Your task to perform on an android device: Add "sony triple a" to the cart on costco Image 0: 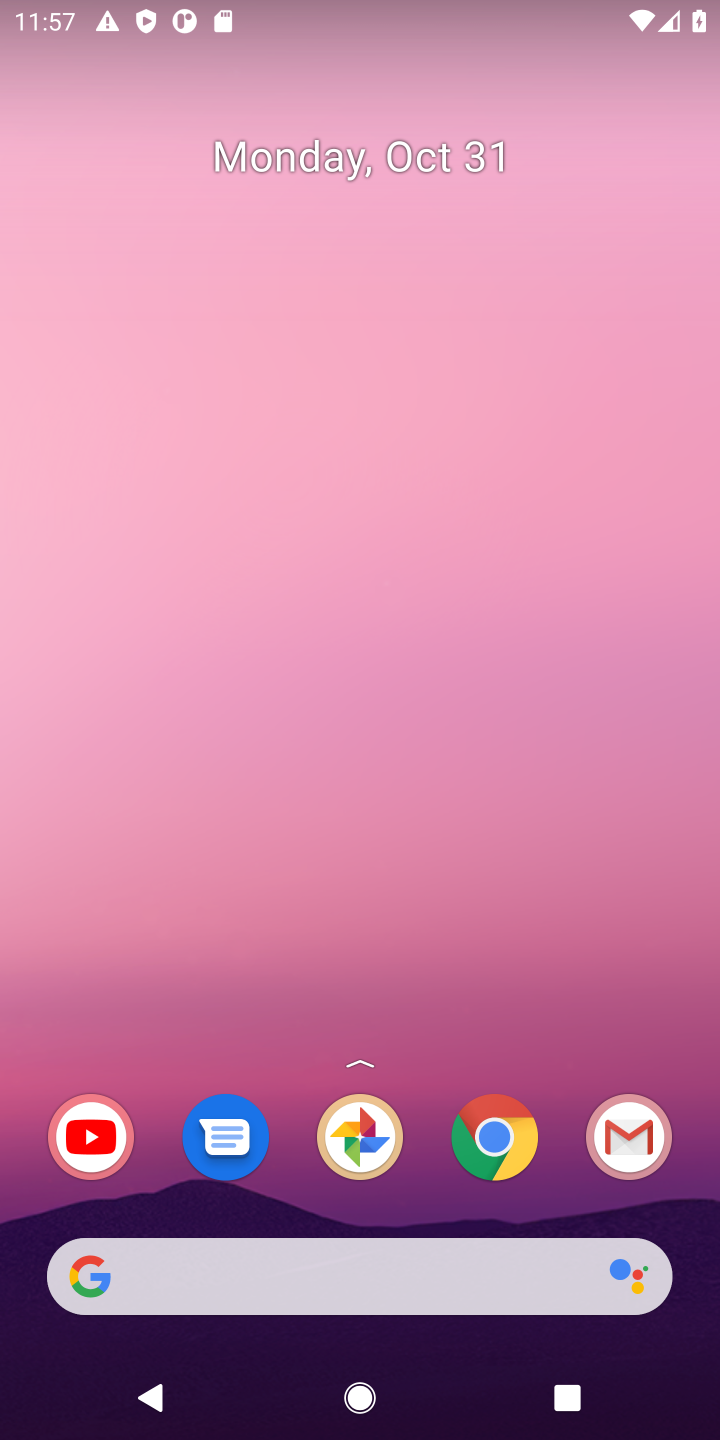
Step 0: click (490, 1145)
Your task to perform on an android device: Add "sony triple a" to the cart on costco Image 1: 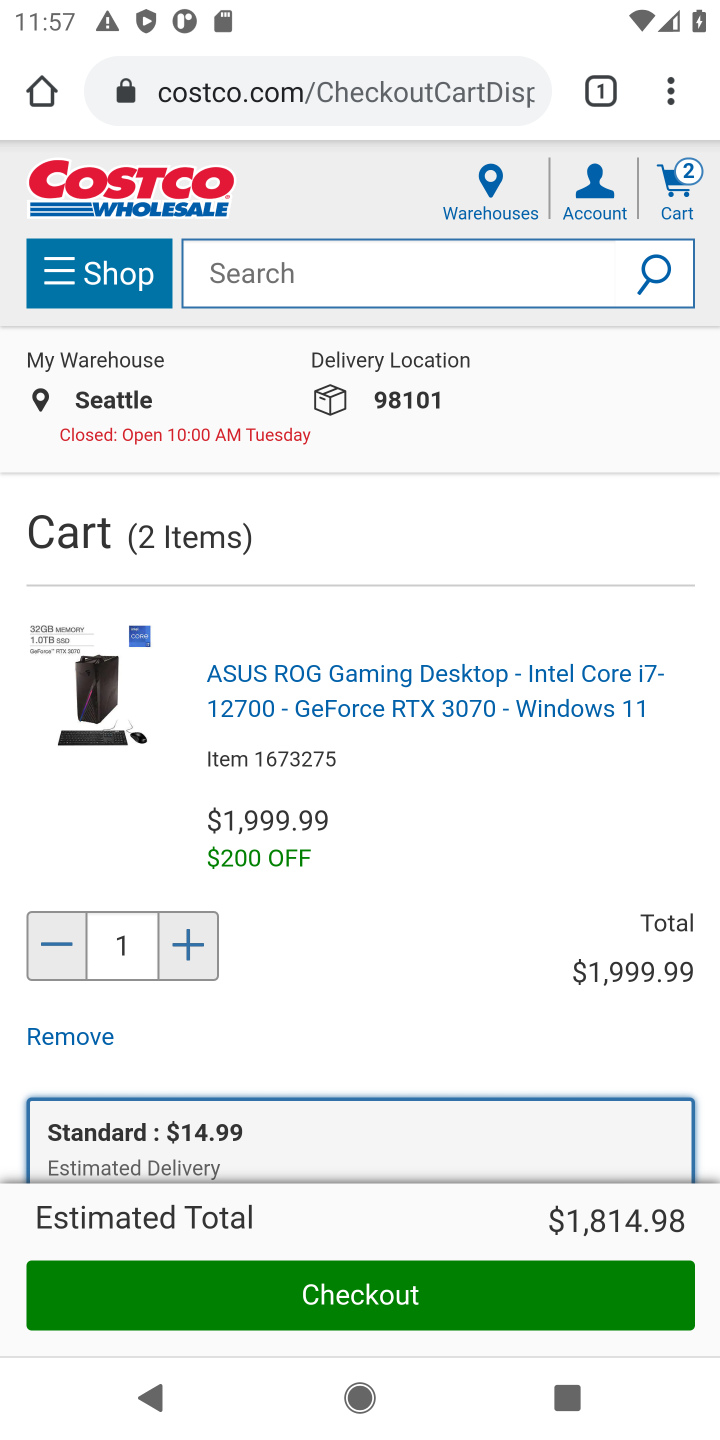
Step 1: click (375, 79)
Your task to perform on an android device: Add "sony triple a" to the cart on costco Image 2: 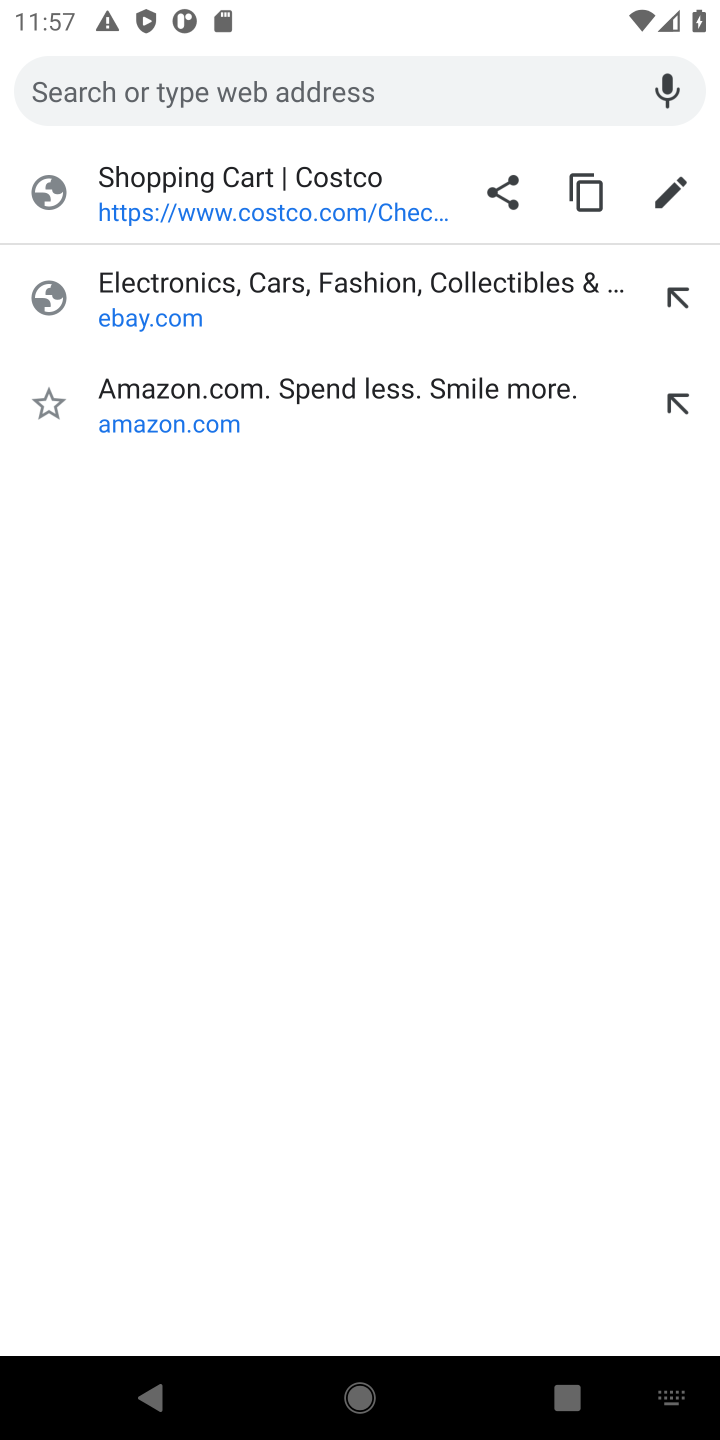
Step 2: type "costco"
Your task to perform on an android device: Add "sony triple a" to the cart on costco Image 3: 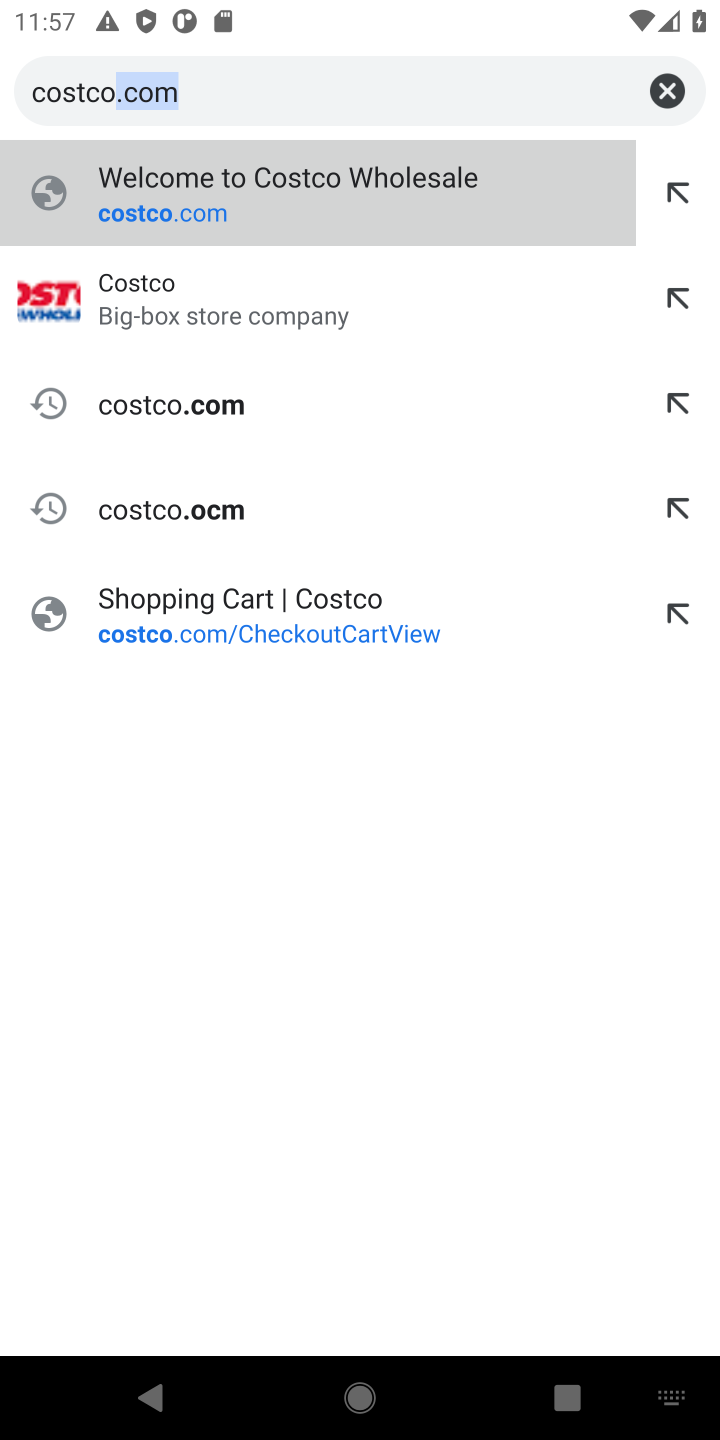
Step 3: click (216, 323)
Your task to perform on an android device: Add "sony triple a" to the cart on costco Image 4: 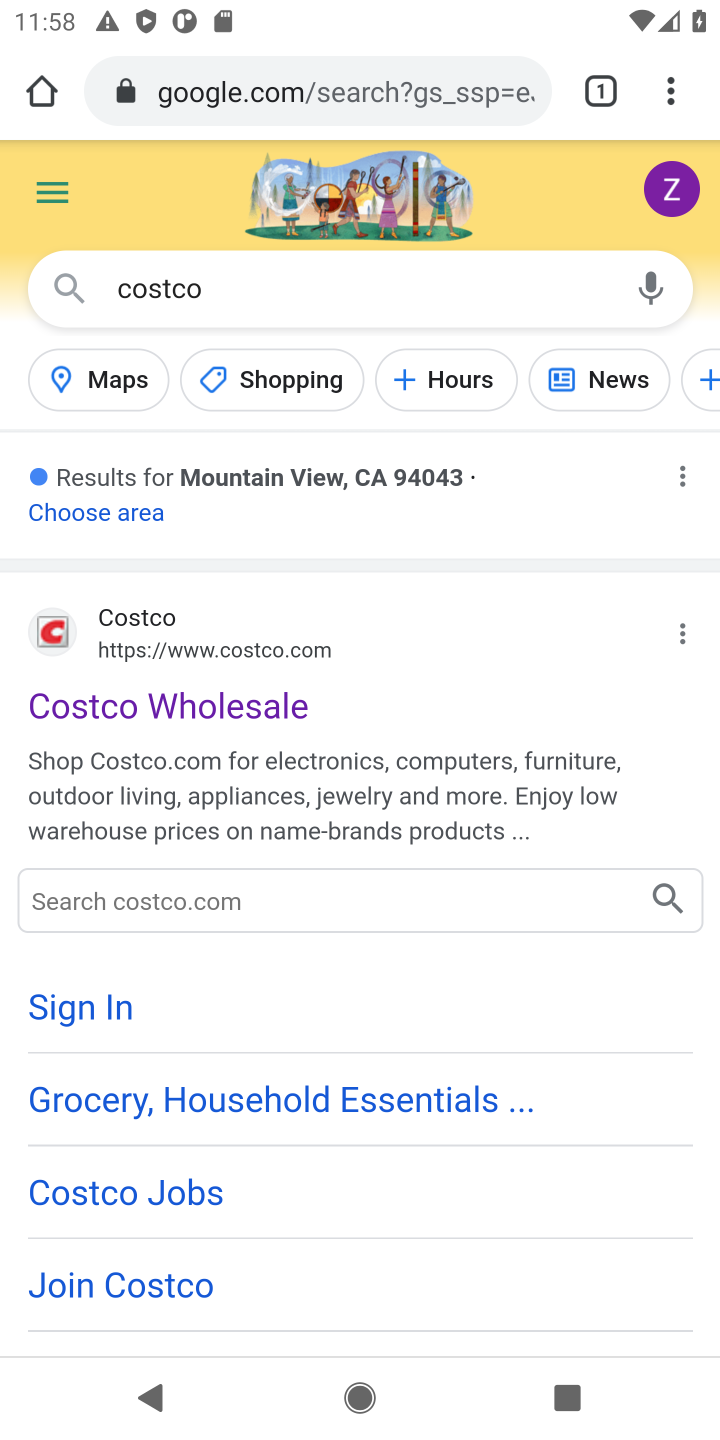
Step 4: click (196, 656)
Your task to perform on an android device: Add "sony triple a" to the cart on costco Image 5: 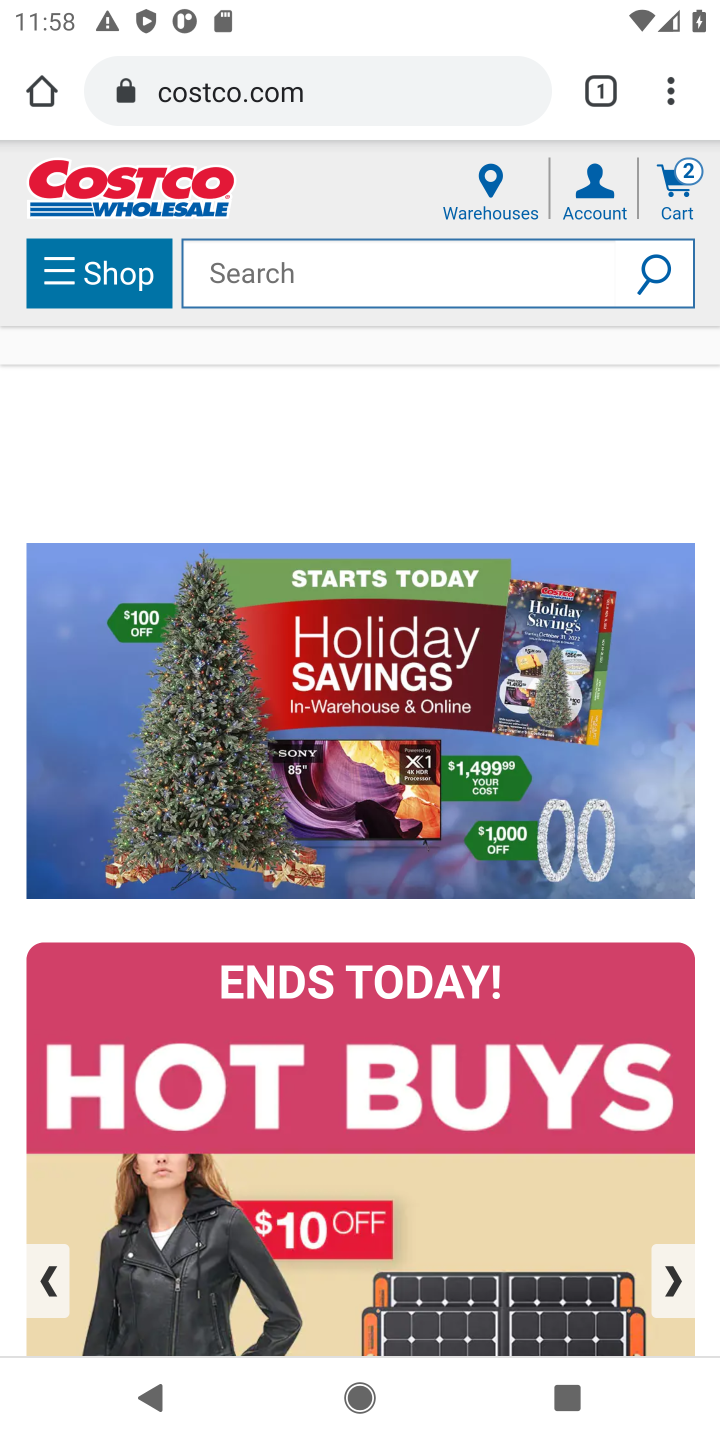
Step 5: click (374, 277)
Your task to perform on an android device: Add "sony triple a" to the cart on costco Image 6: 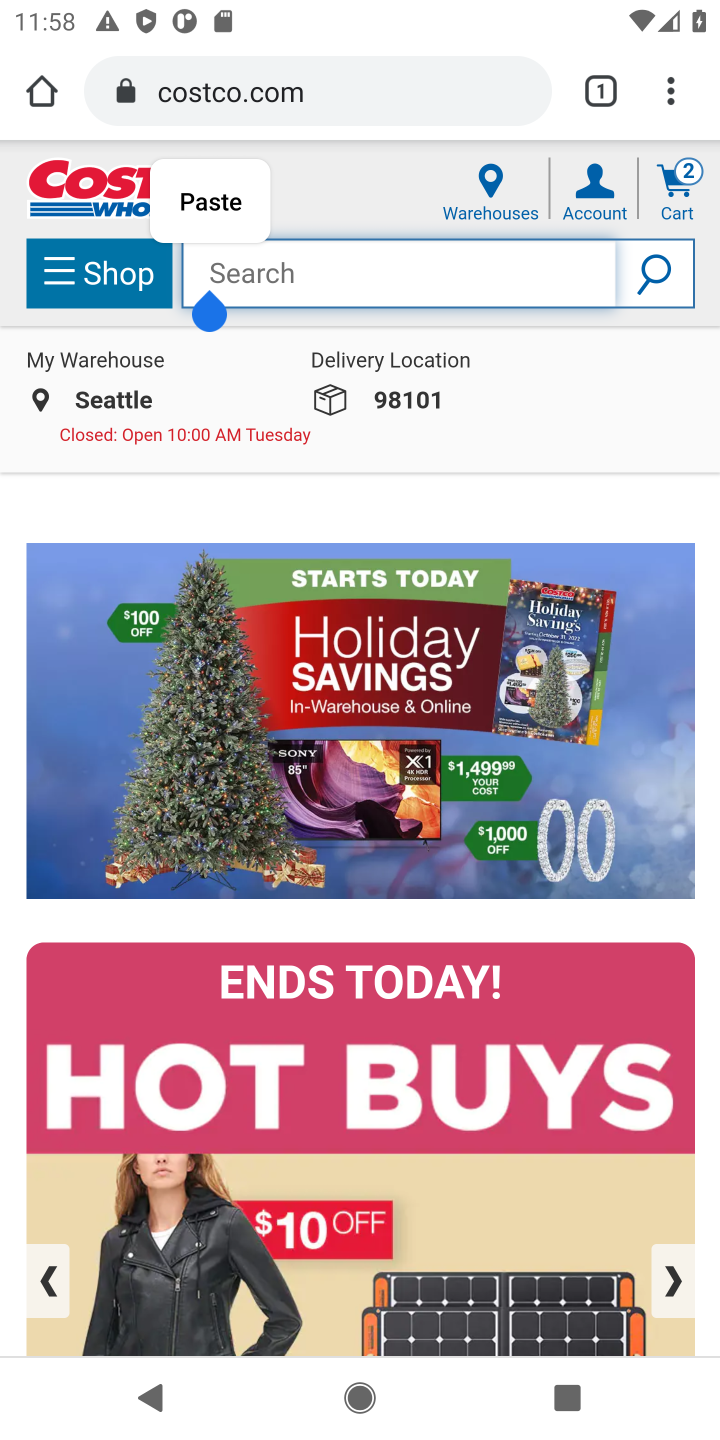
Step 6: type "son"
Your task to perform on an android device: Add "sony triple a" to the cart on costco Image 7: 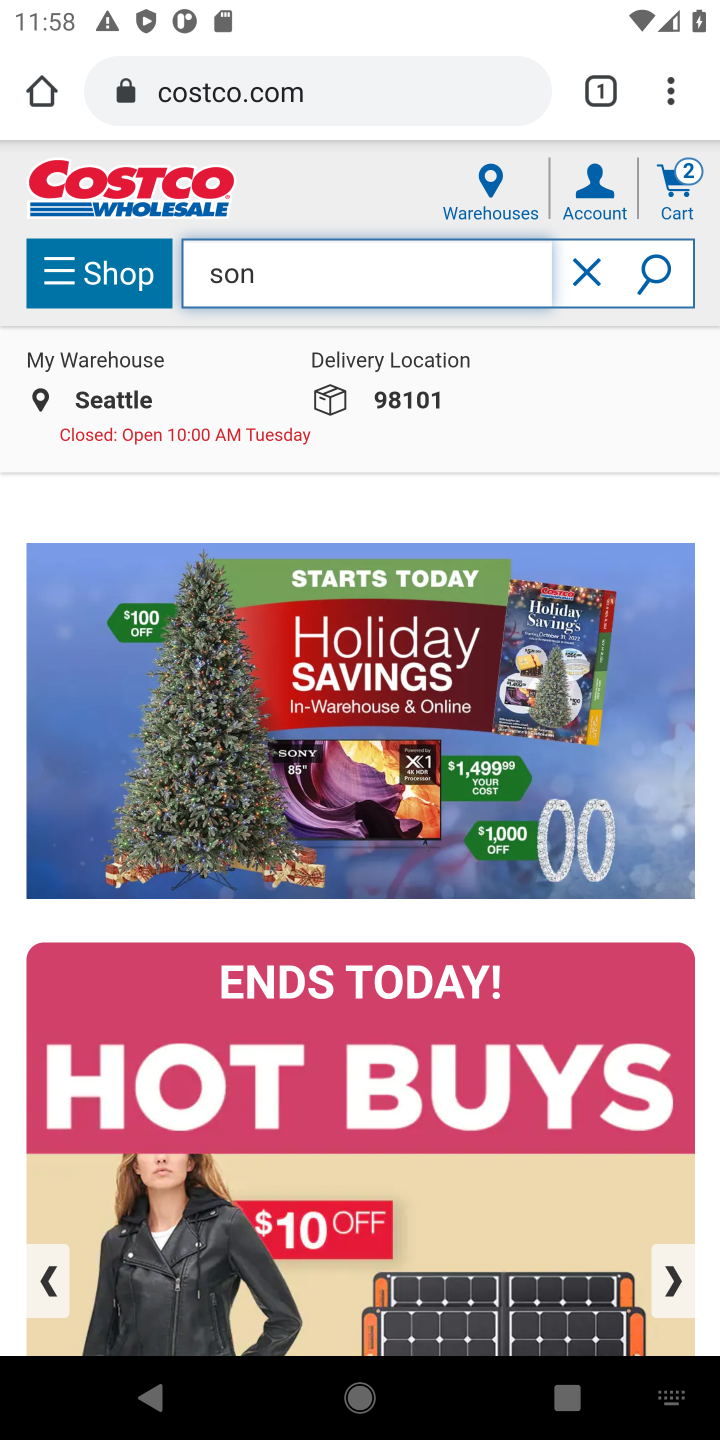
Step 7: type "y triple a"
Your task to perform on an android device: Add "sony triple a" to the cart on costco Image 8: 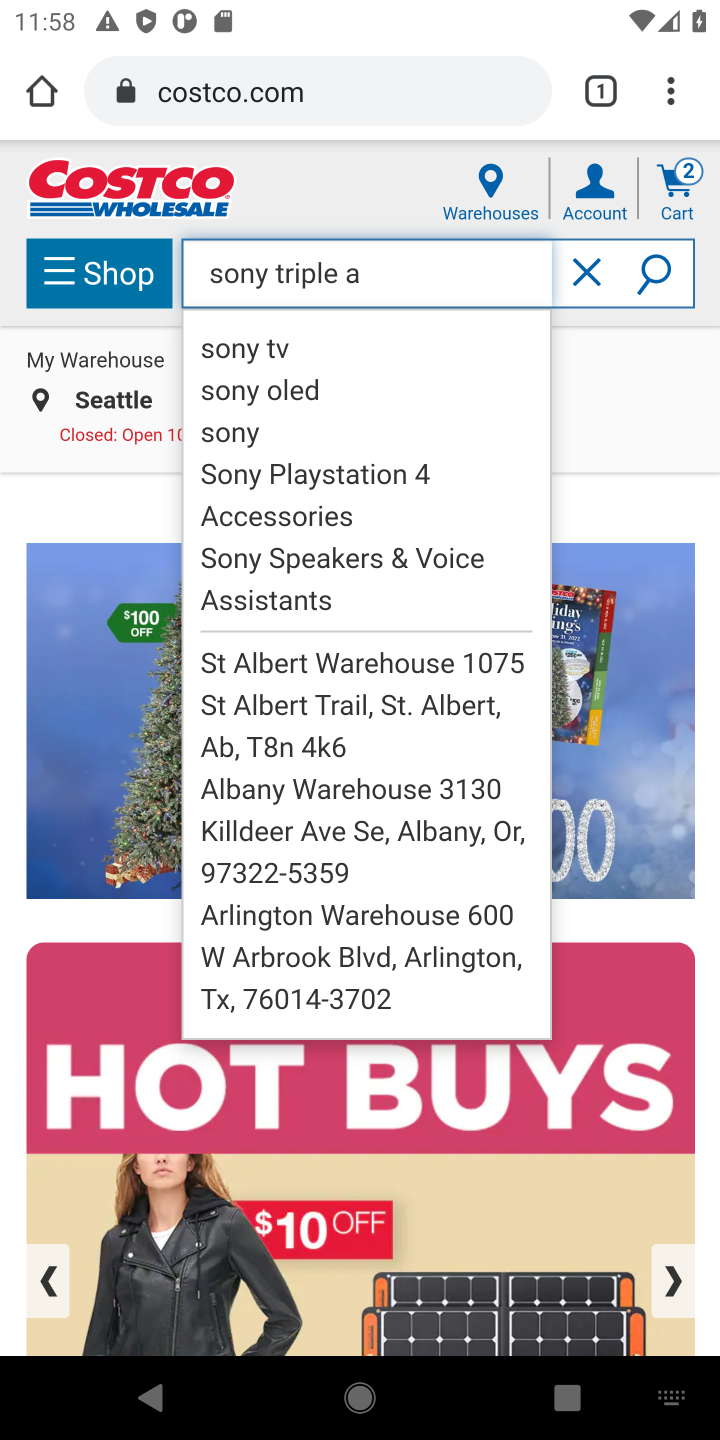
Step 8: click (648, 272)
Your task to perform on an android device: Add "sony triple a" to the cart on costco Image 9: 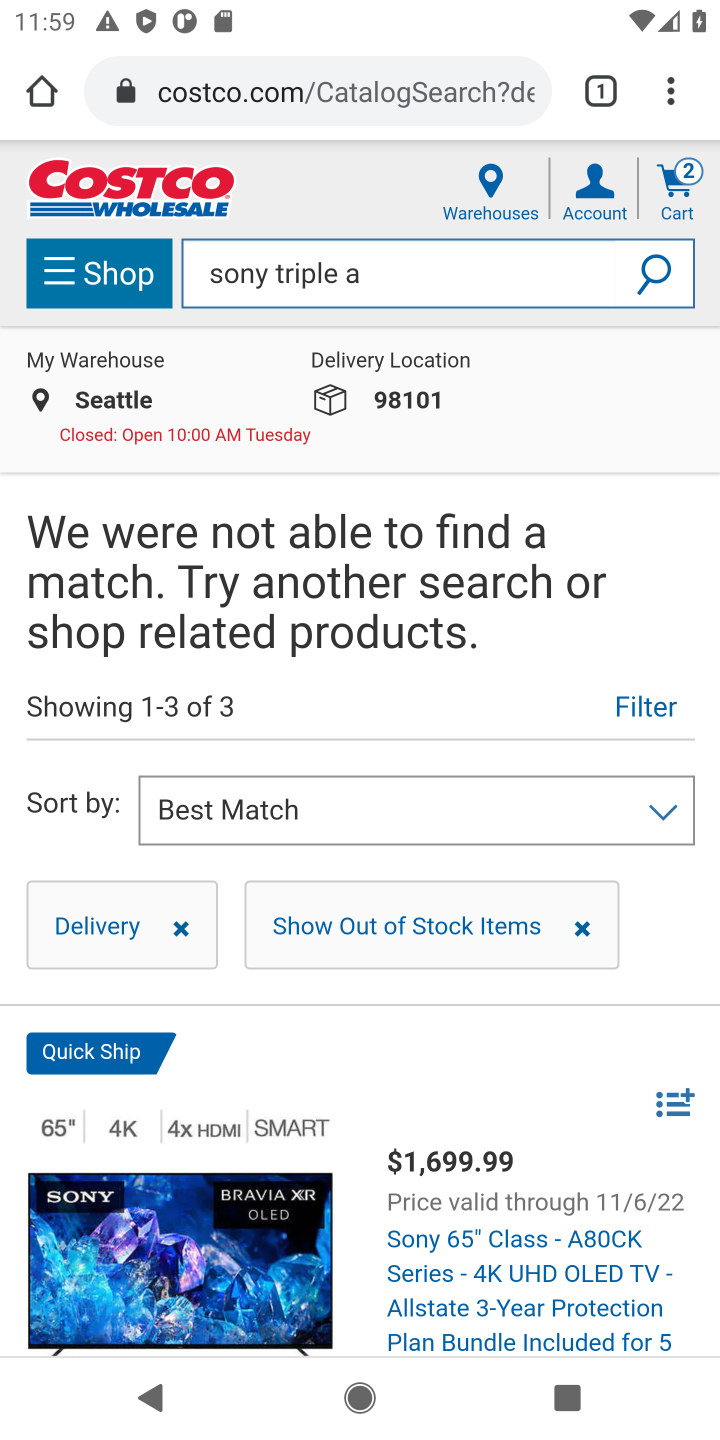
Step 9: task complete